Your task to perform on an android device: View the shopping cart on newegg.com. Image 0: 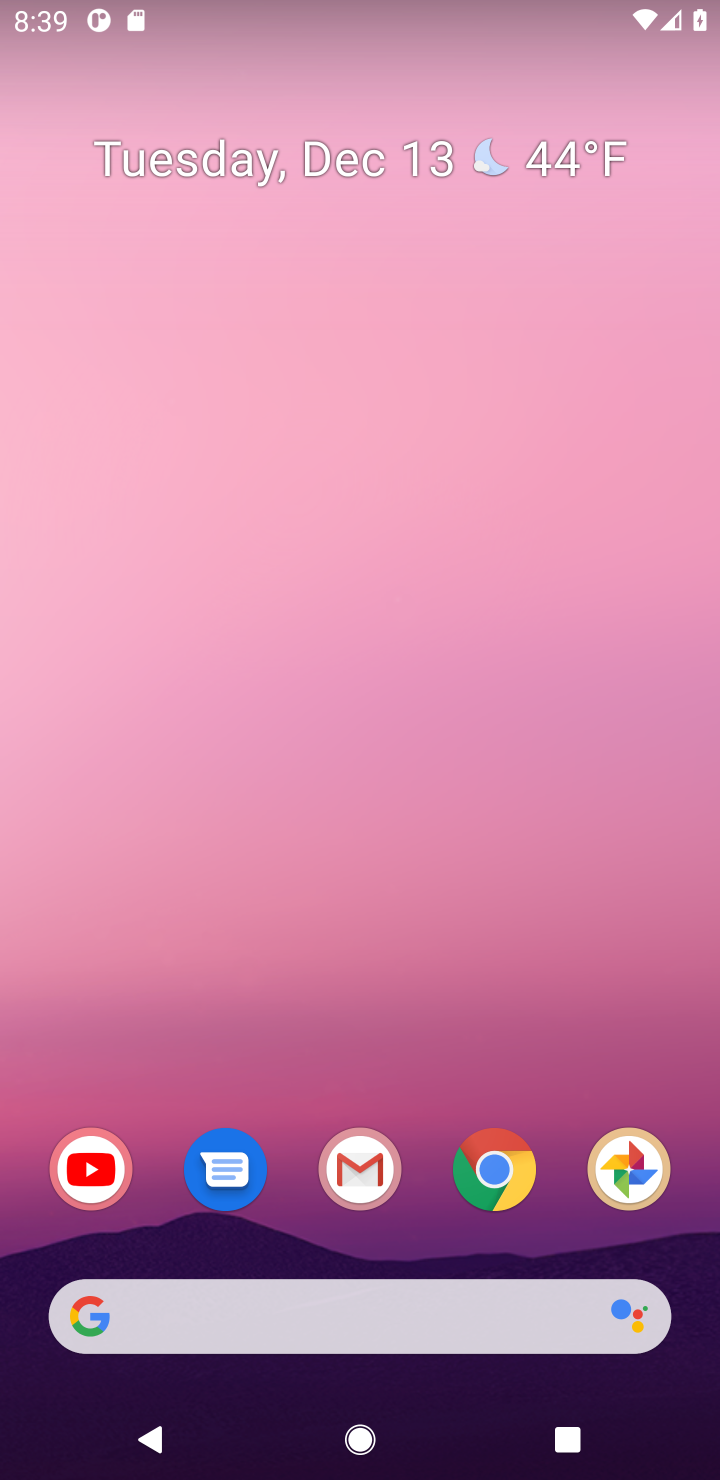
Step 0: click (505, 1164)
Your task to perform on an android device: View the shopping cart on newegg.com. Image 1: 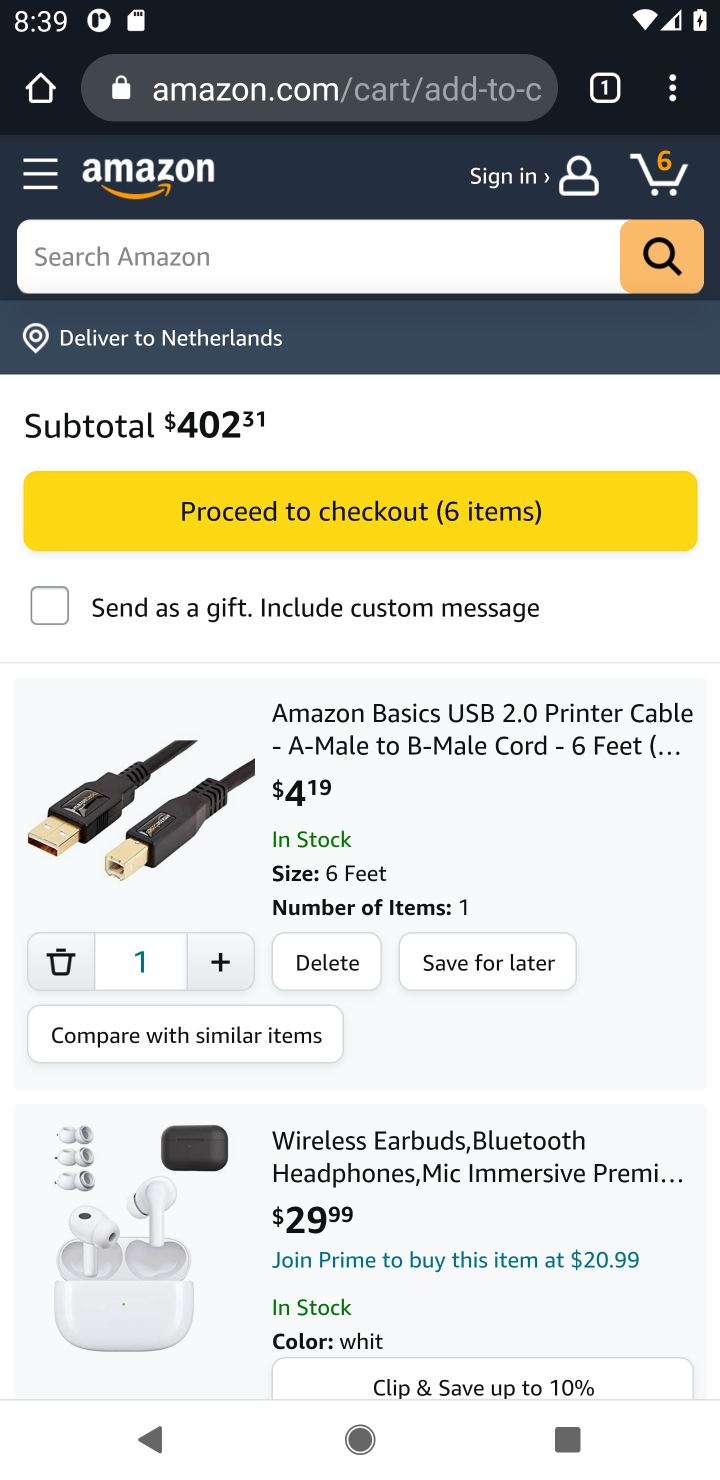
Step 1: click (239, 117)
Your task to perform on an android device: View the shopping cart on newegg.com. Image 2: 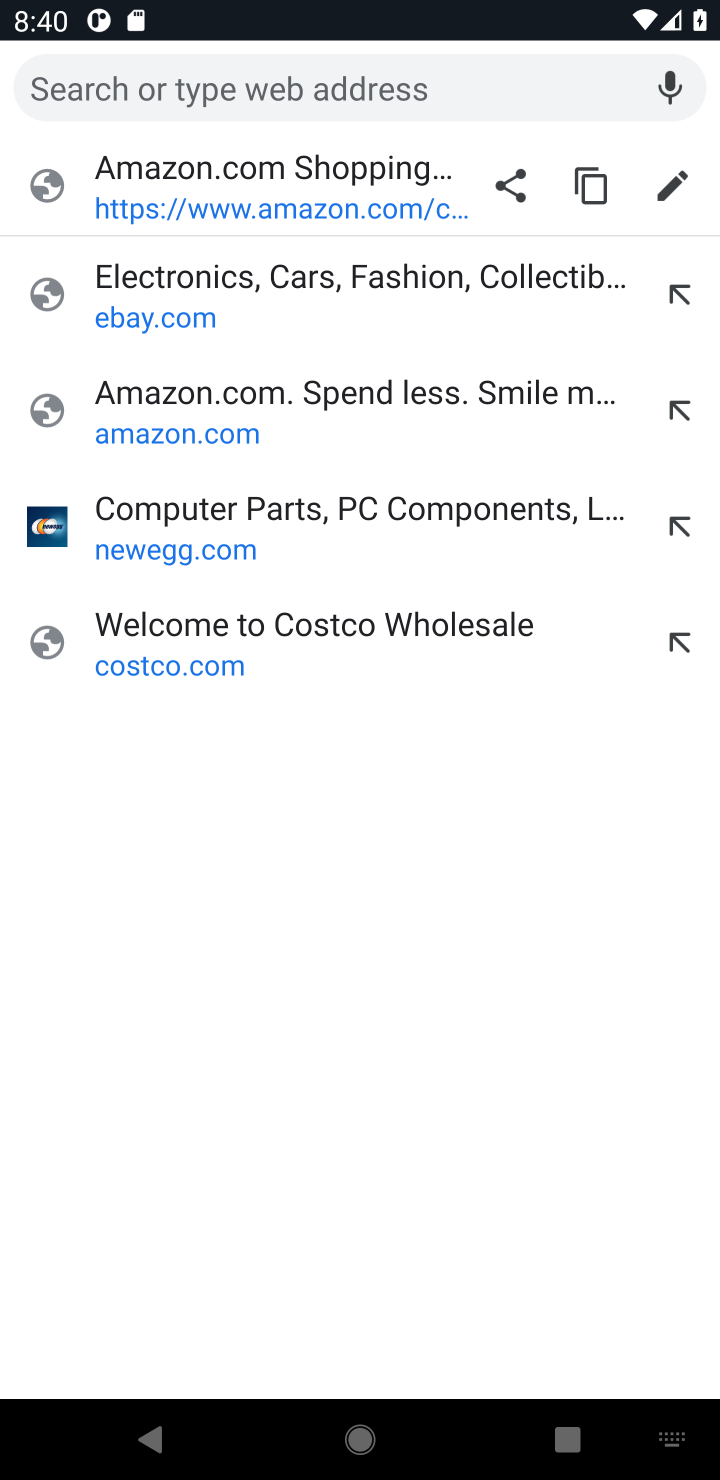
Step 2: click (202, 182)
Your task to perform on an android device: View the shopping cart on newegg.com. Image 3: 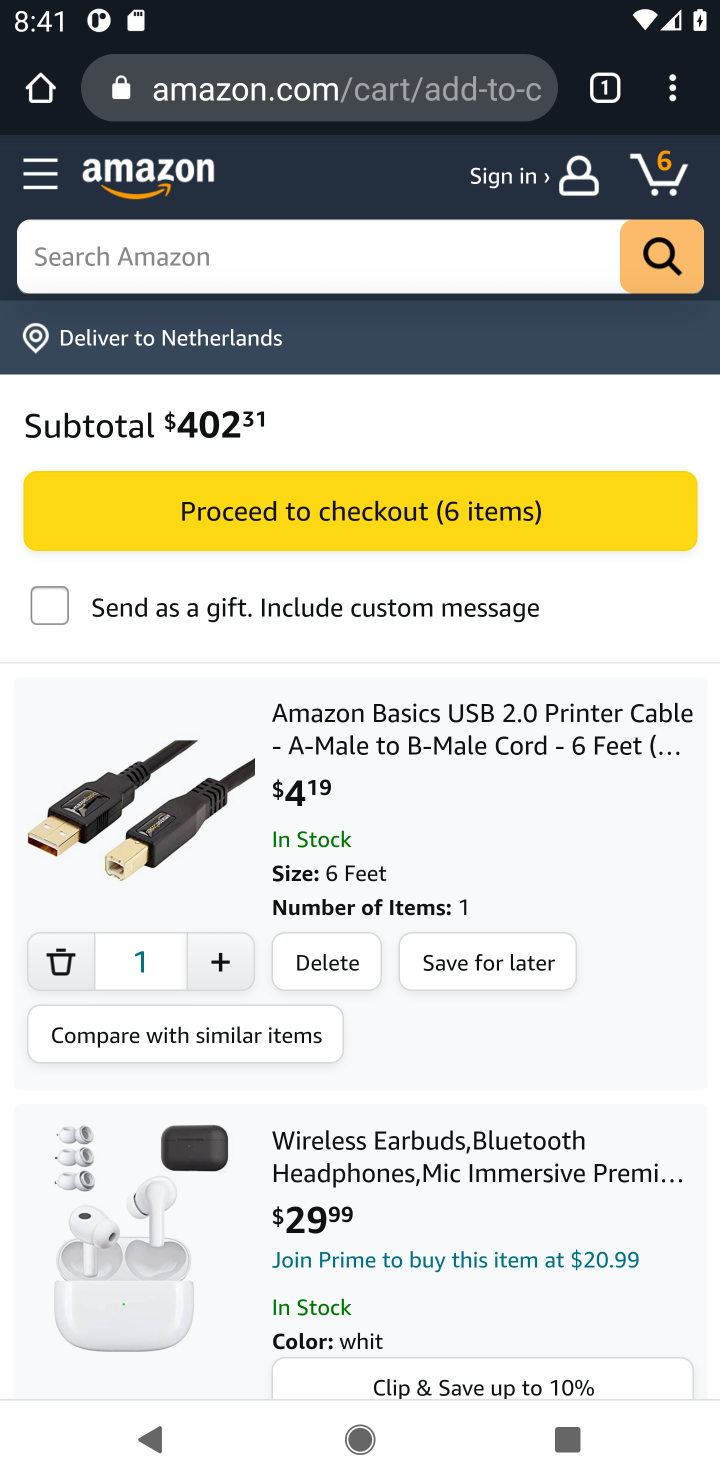
Step 3: task complete